Your task to perform on an android device: turn on bluetooth scan Image 0: 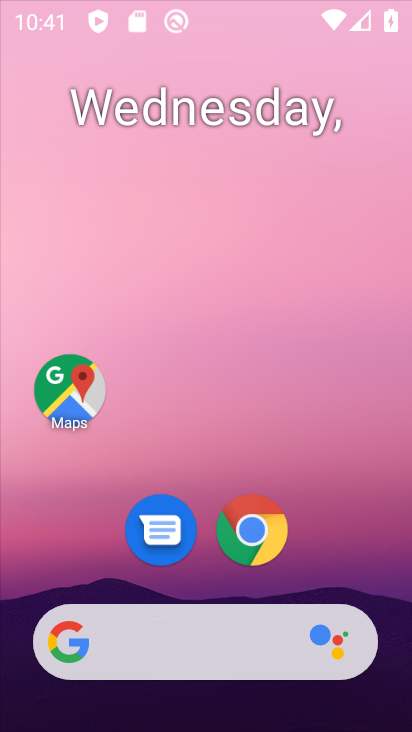
Step 0: drag from (323, 126) to (325, 5)
Your task to perform on an android device: turn on bluetooth scan Image 1: 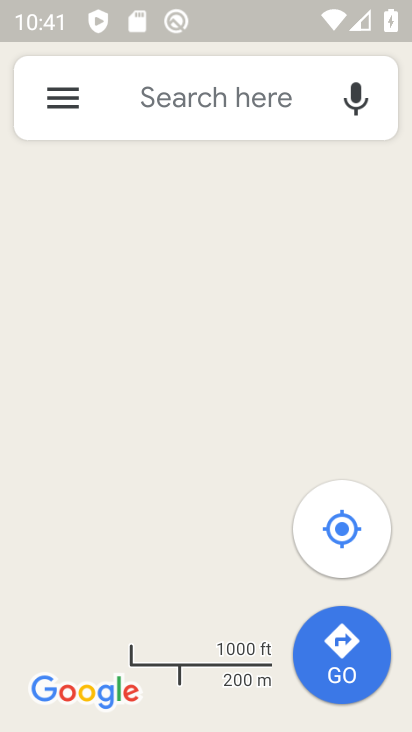
Step 1: press home button
Your task to perform on an android device: turn on bluetooth scan Image 2: 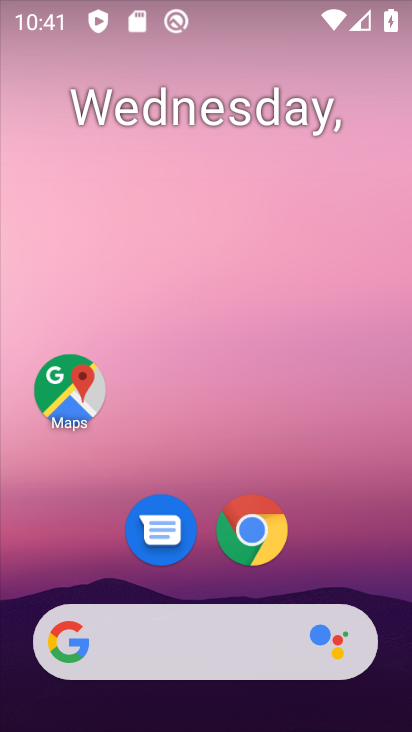
Step 2: drag from (355, 494) to (349, 41)
Your task to perform on an android device: turn on bluetooth scan Image 3: 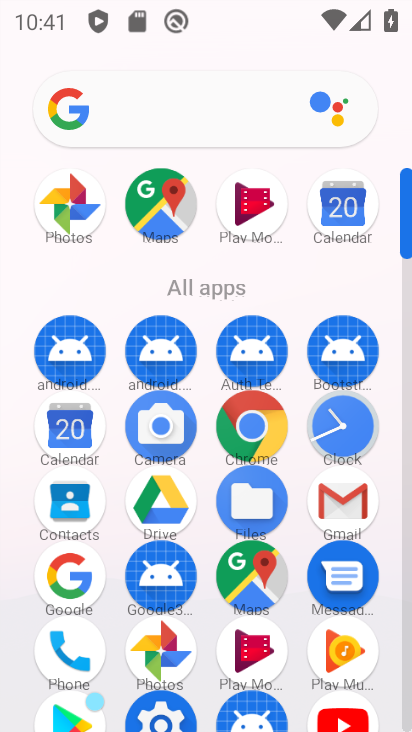
Step 3: click (398, 689)
Your task to perform on an android device: turn on bluetooth scan Image 4: 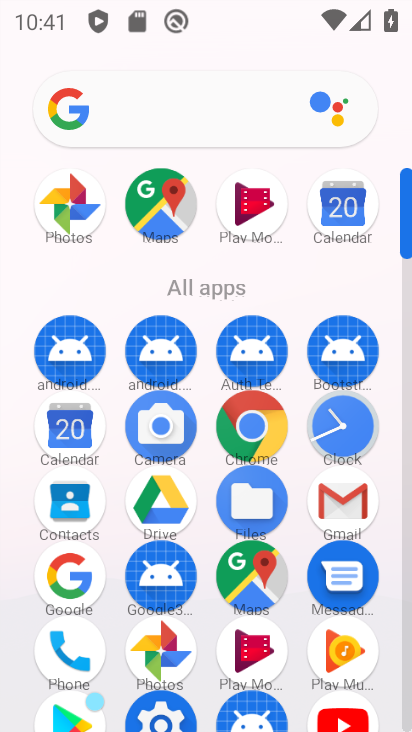
Step 4: click (161, 705)
Your task to perform on an android device: turn on bluetooth scan Image 5: 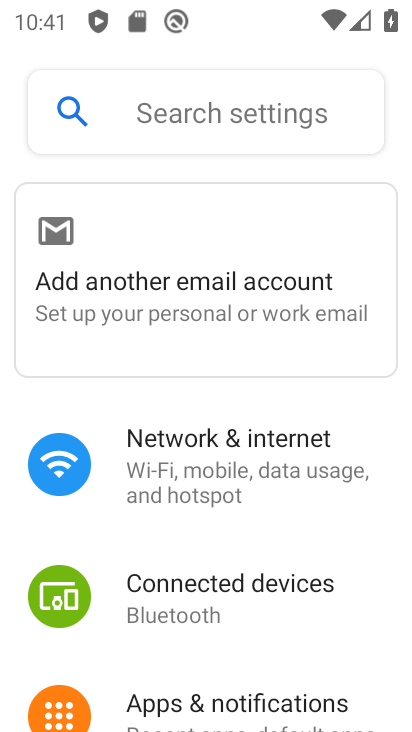
Step 5: click (403, 129)
Your task to perform on an android device: turn on bluetooth scan Image 6: 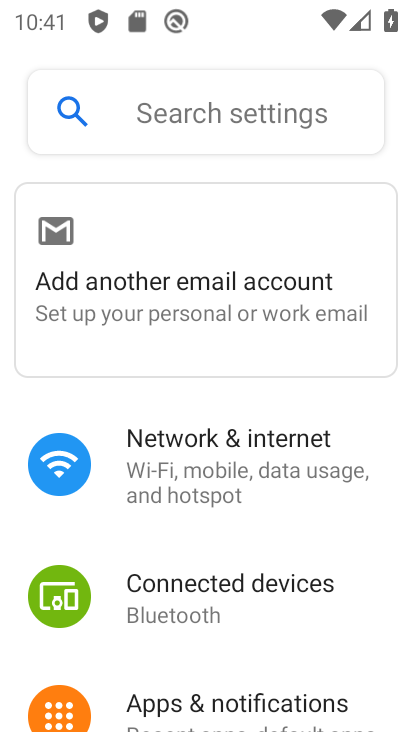
Step 6: drag from (232, 629) to (214, 87)
Your task to perform on an android device: turn on bluetooth scan Image 7: 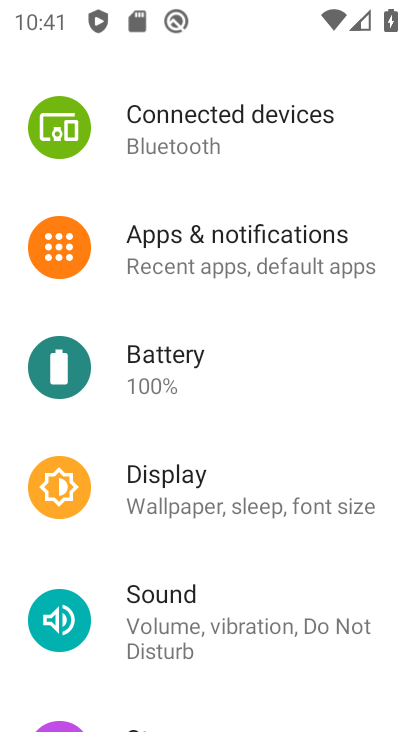
Step 7: drag from (308, 422) to (355, 7)
Your task to perform on an android device: turn on bluetooth scan Image 8: 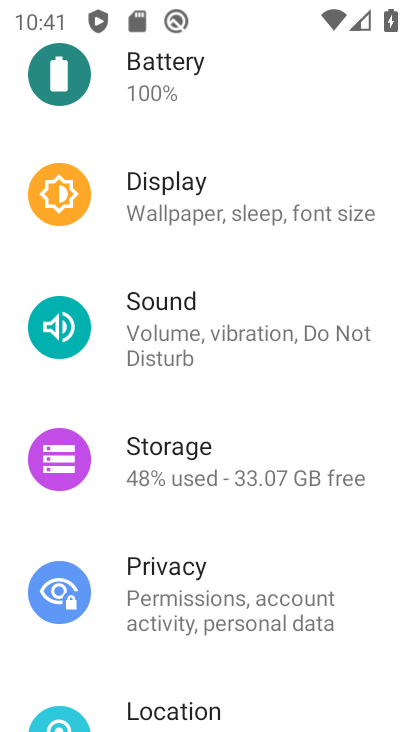
Step 8: drag from (201, 563) to (202, 238)
Your task to perform on an android device: turn on bluetooth scan Image 9: 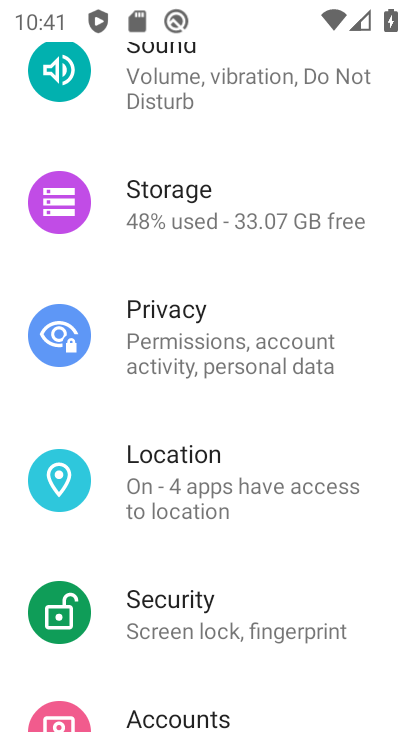
Step 9: drag from (210, 556) to (206, 318)
Your task to perform on an android device: turn on bluetooth scan Image 10: 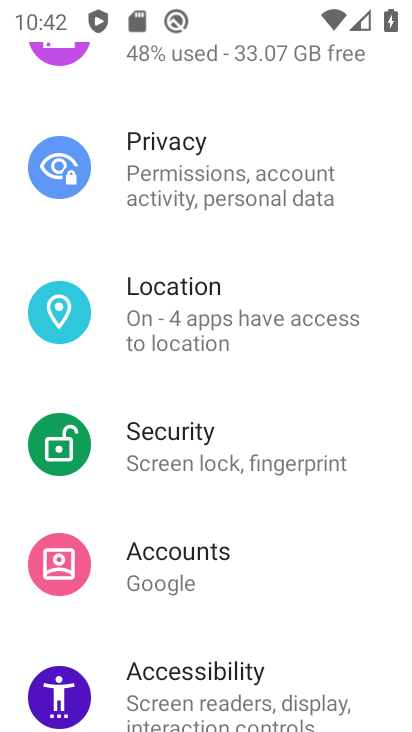
Step 10: click (221, 335)
Your task to perform on an android device: turn on bluetooth scan Image 11: 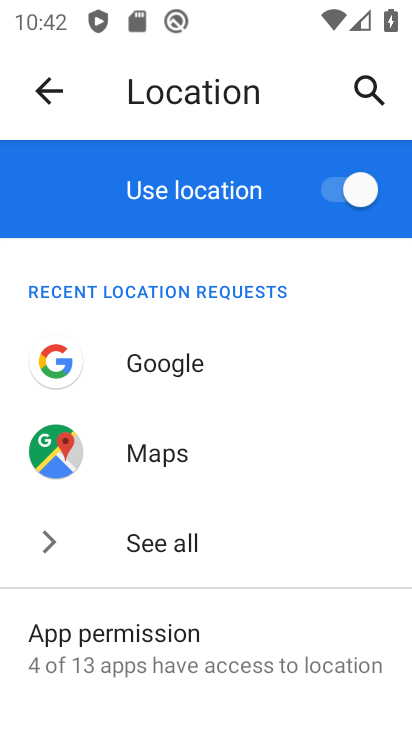
Step 11: drag from (286, 661) to (257, 96)
Your task to perform on an android device: turn on bluetooth scan Image 12: 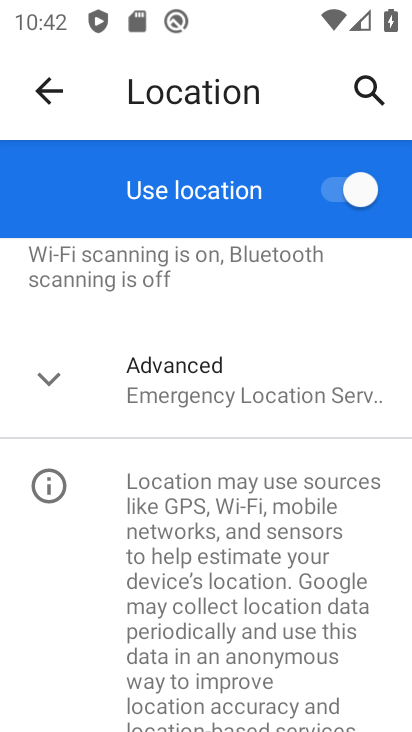
Step 12: drag from (206, 601) to (178, 730)
Your task to perform on an android device: turn on bluetooth scan Image 13: 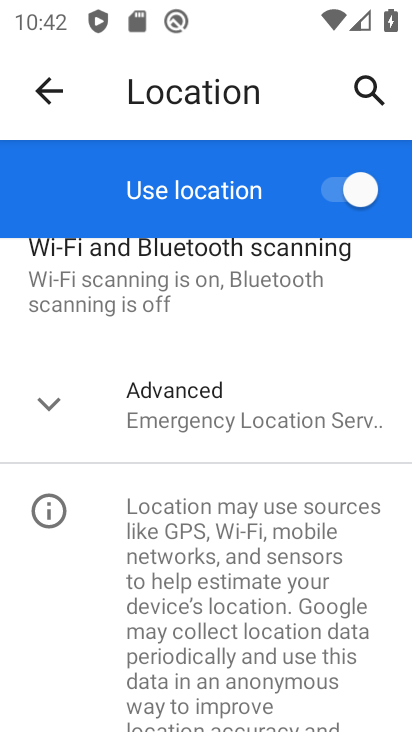
Step 13: click (81, 309)
Your task to perform on an android device: turn on bluetooth scan Image 14: 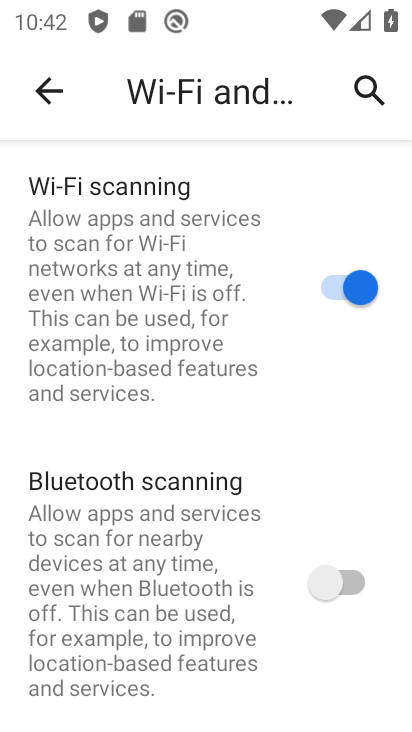
Step 14: click (196, 551)
Your task to perform on an android device: turn on bluetooth scan Image 15: 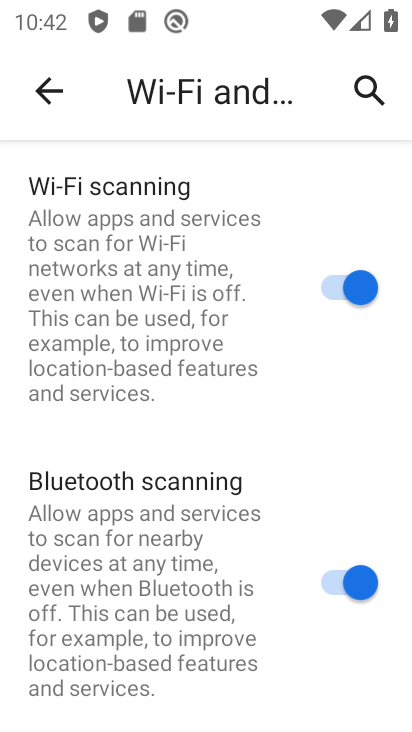
Step 15: task complete